Your task to perform on an android device: Go to eBay Image 0: 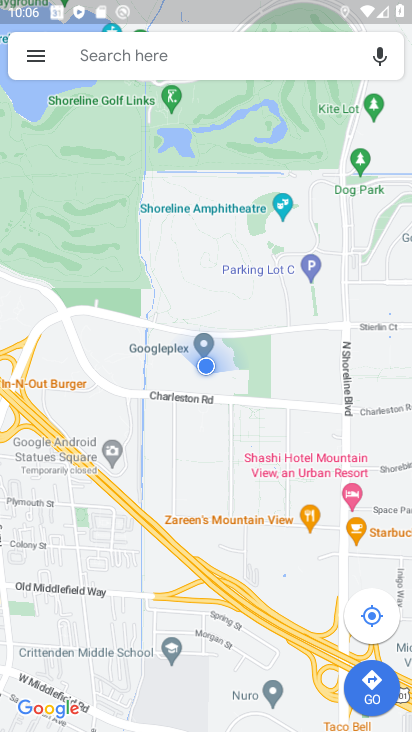
Step 0: press home button
Your task to perform on an android device: Go to eBay Image 1: 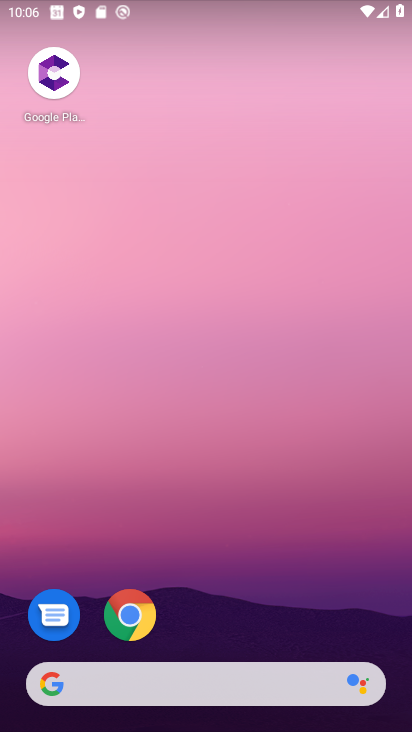
Step 1: drag from (219, 627) to (241, 147)
Your task to perform on an android device: Go to eBay Image 2: 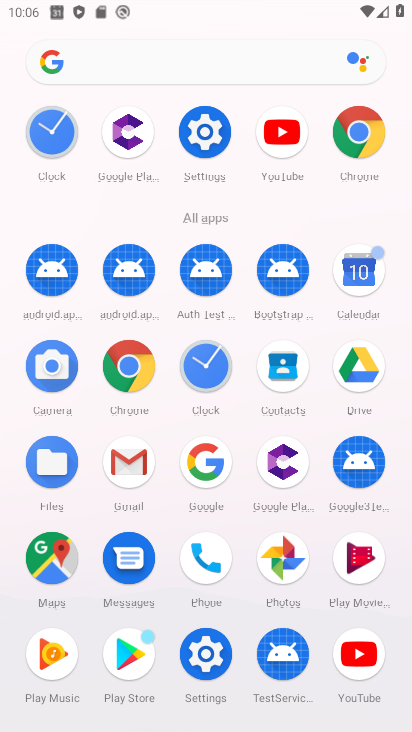
Step 2: click (124, 363)
Your task to perform on an android device: Go to eBay Image 3: 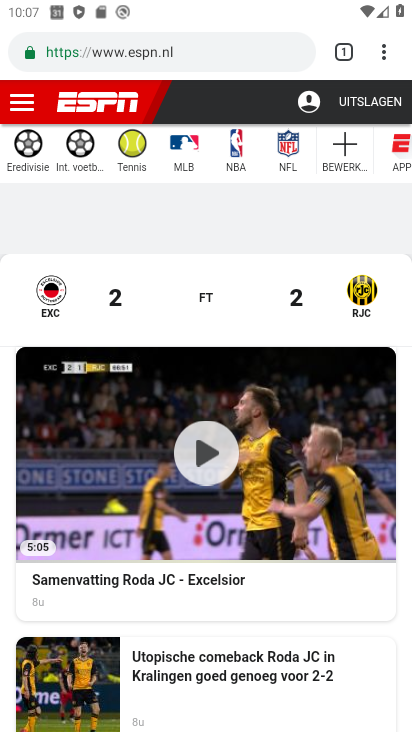
Step 3: click (335, 52)
Your task to perform on an android device: Go to eBay Image 4: 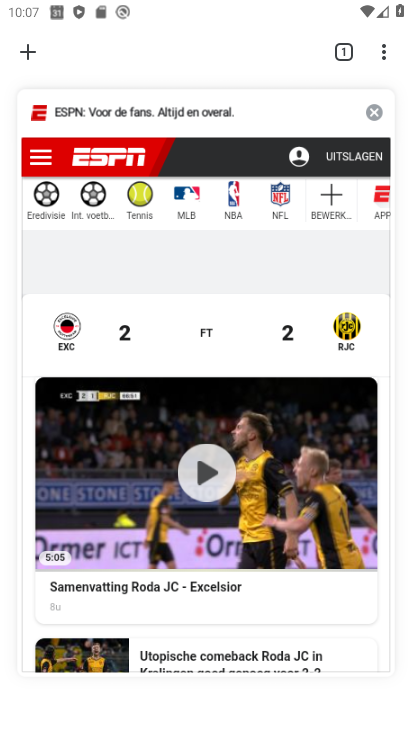
Step 4: click (376, 109)
Your task to perform on an android device: Go to eBay Image 5: 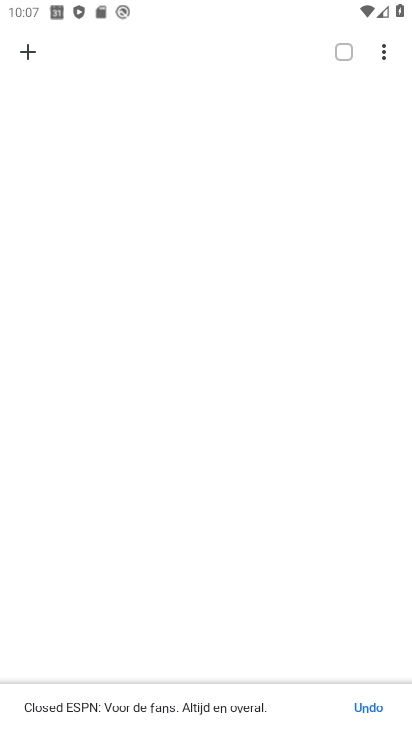
Step 5: click (22, 52)
Your task to perform on an android device: Go to eBay Image 6: 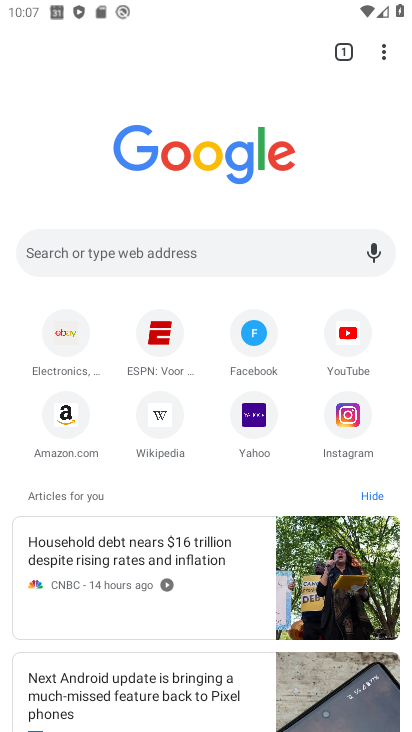
Step 6: click (64, 340)
Your task to perform on an android device: Go to eBay Image 7: 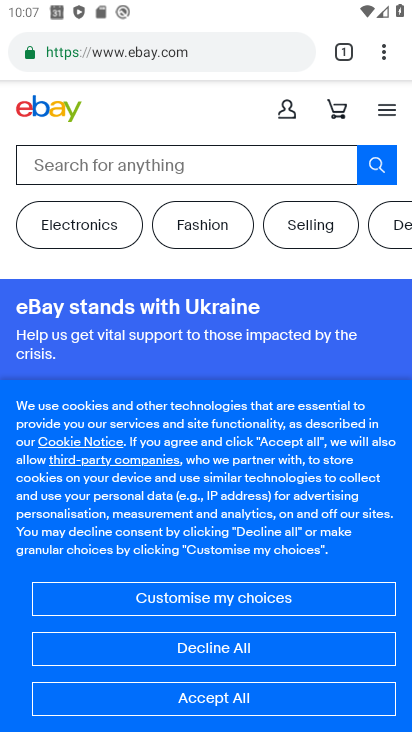
Step 7: task complete